Your task to perform on an android device: Search for seafood restaurants on Google Maps Image 0: 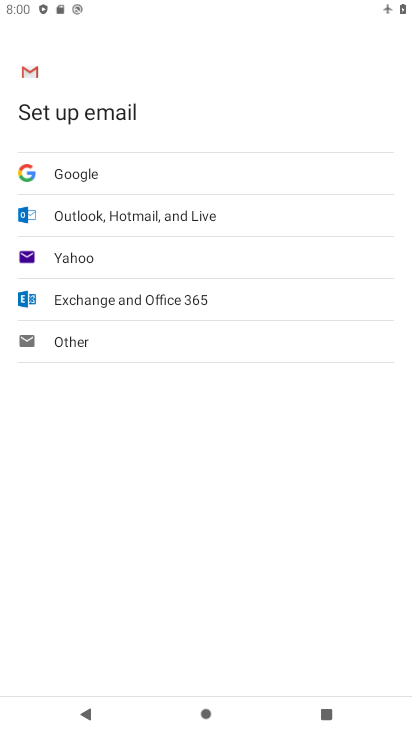
Step 0: press home button
Your task to perform on an android device: Search for seafood restaurants on Google Maps Image 1: 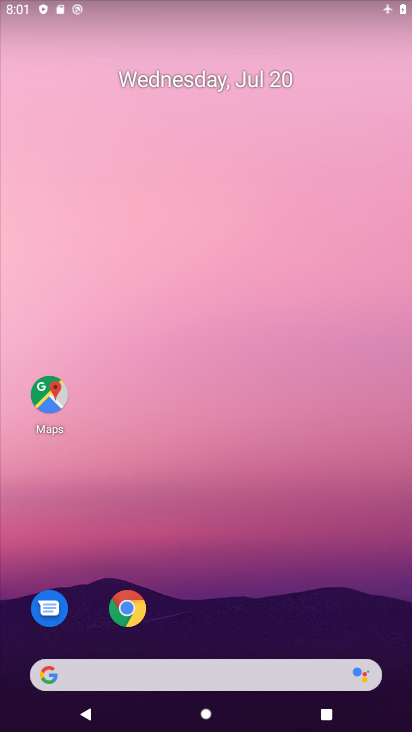
Step 1: click (47, 393)
Your task to perform on an android device: Search for seafood restaurants on Google Maps Image 2: 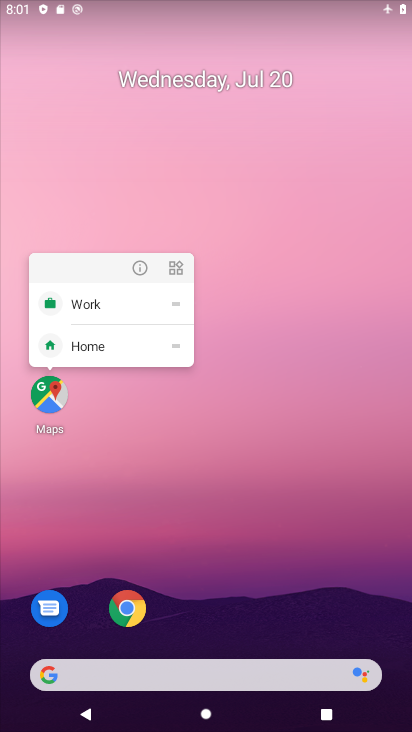
Step 2: click (49, 391)
Your task to perform on an android device: Search for seafood restaurants on Google Maps Image 3: 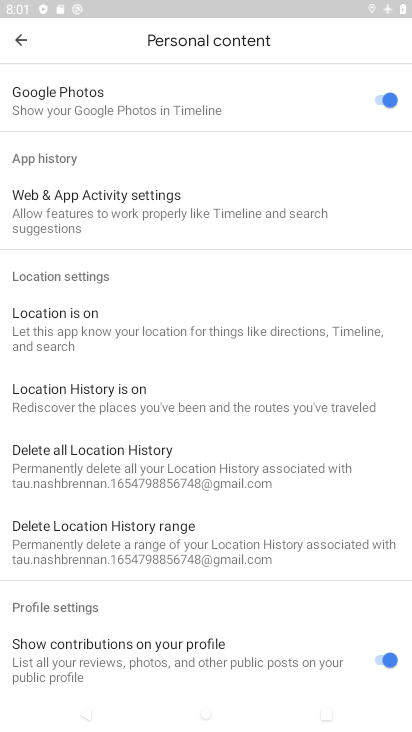
Step 3: click (17, 31)
Your task to perform on an android device: Search for seafood restaurants on Google Maps Image 4: 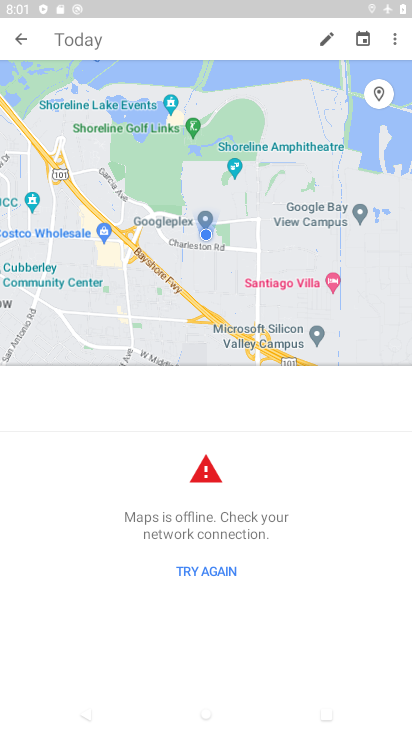
Step 4: click (27, 30)
Your task to perform on an android device: Search for seafood restaurants on Google Maps Image 5: 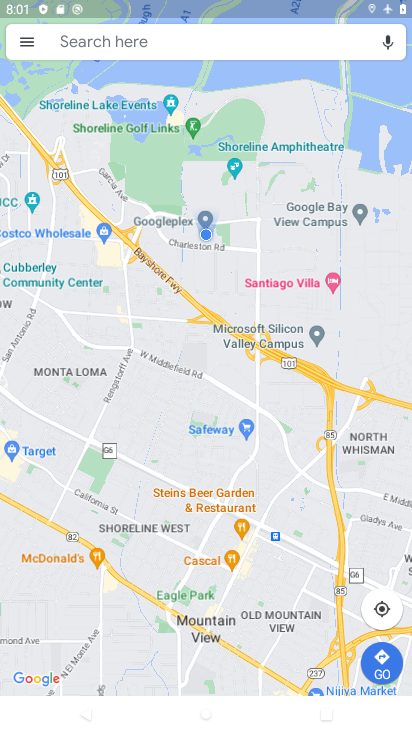
Step 5: click (167, 41)
Your task to perform on an android device: Search for seafood restaurants on Google Maps Image 6: 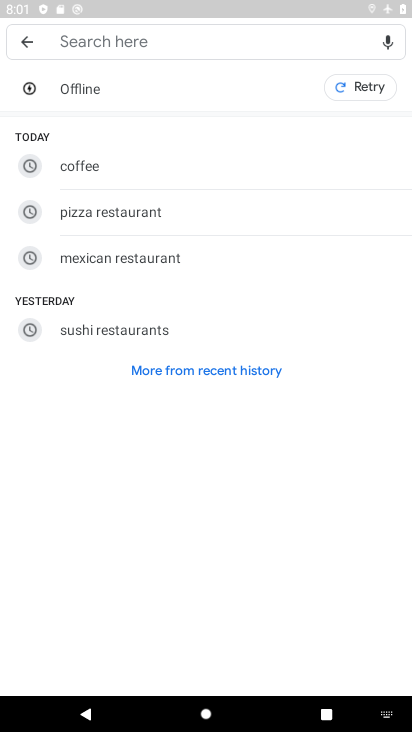
Step 6: type "seafood restaurants"
Your task to perform on an android device: Search for seafood restaurants on Google Maps Image 7: 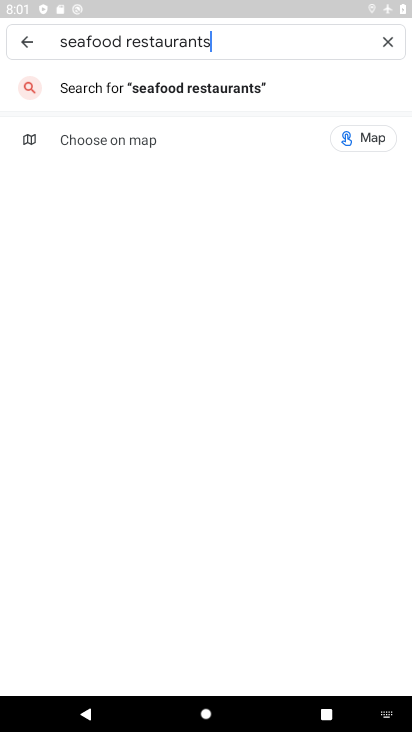
Step 7: click (203, 77)
Your task to perform on an android device: Search for seafood restaurants on Google Maps Image 8: 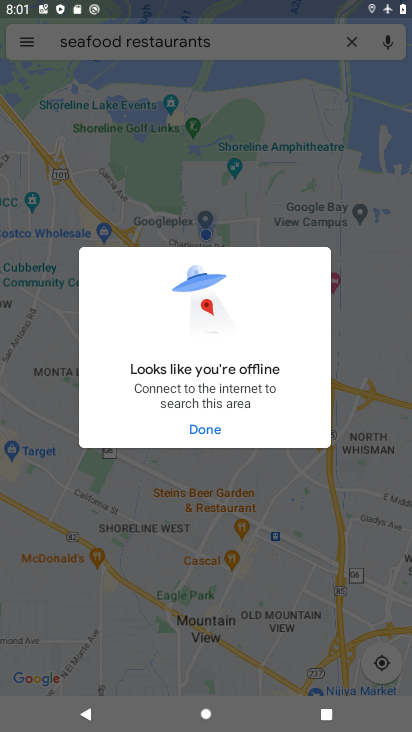
Step 8: click (208, 434)
Your task to perform on an android device: Search for seafood restaurants on Google Maps Image 9: 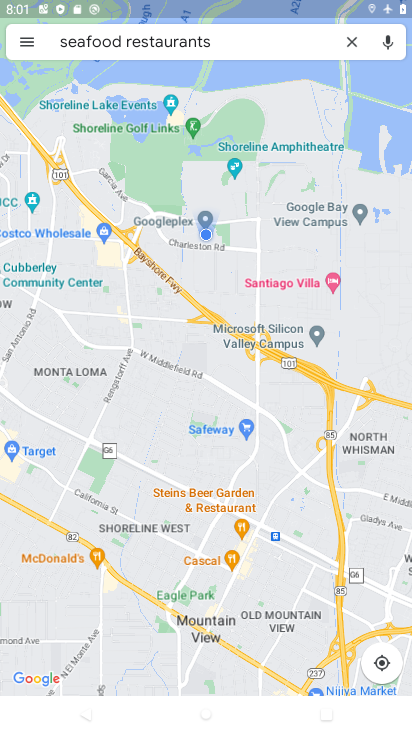
Step 9: task complete